Your task to perform on an android device: set the stopwatch Image 0: 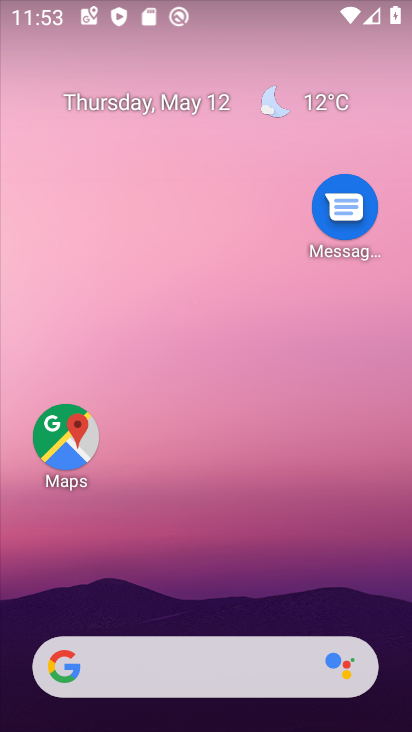
Step 0: press home button
Your task to perform on an android device: set the stopwatch Image 1: 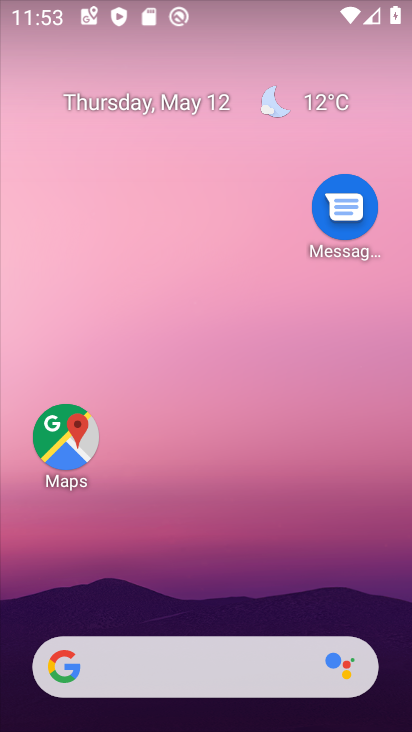
Step 1: drag from (242, 570) to (306, 149)
Your task to perform on an android device: set the stopwatch Image 2: 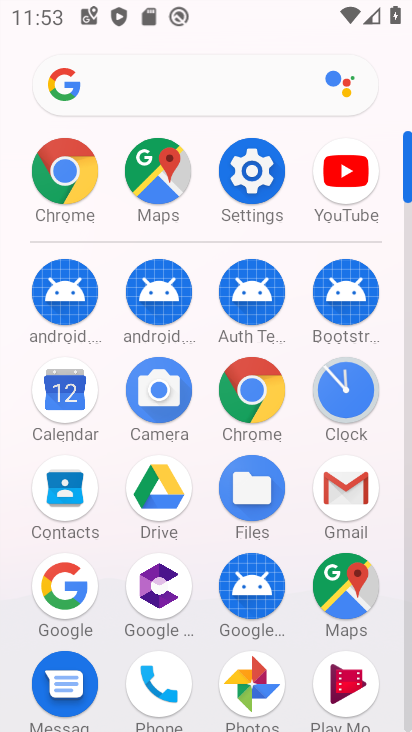
Step 2: click (366, 376)
Your task to perform on an android device: set the stopwatch Image 3: 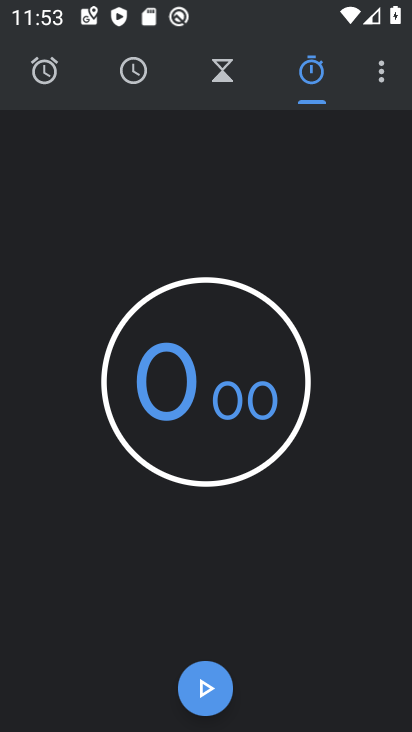
Step 3: click (210, 698)
Your task to perform on an android device: set the stopwatch Image 4: 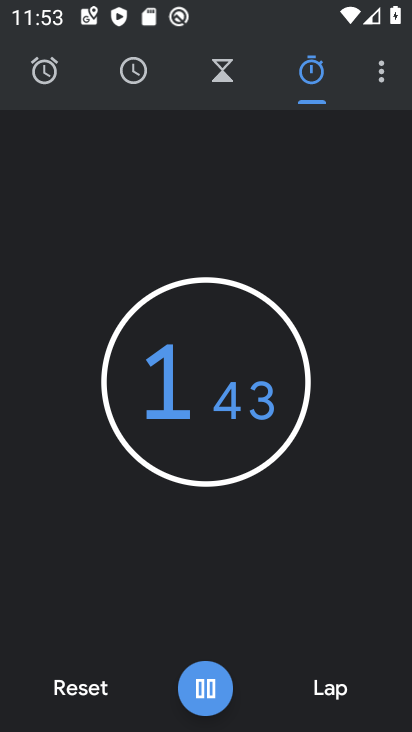
Step 4: task complete